Your task to perform on an android device: add a contact in the contacts app Image 0: 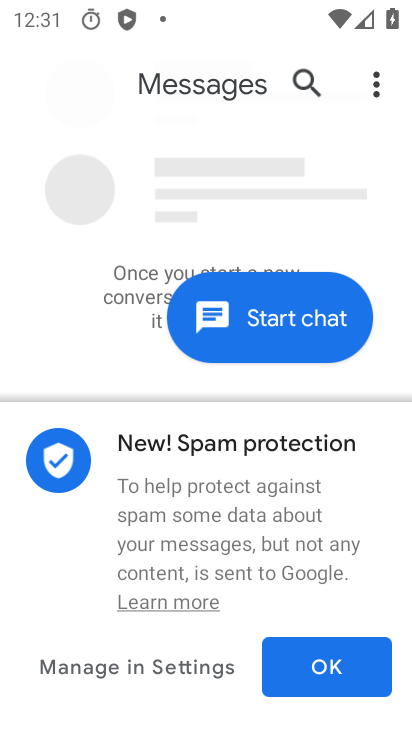
Step 0: press home button
Your task to perform on an android device: add a contact in the contacts app Image 1: 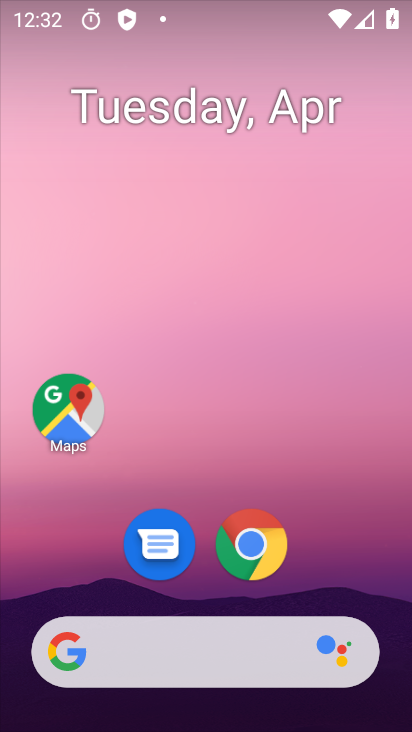
Step 1: drag from (353, 578) to (368, 6)
Your task to perform on an android device: add a contact in the contacts app Image 2: 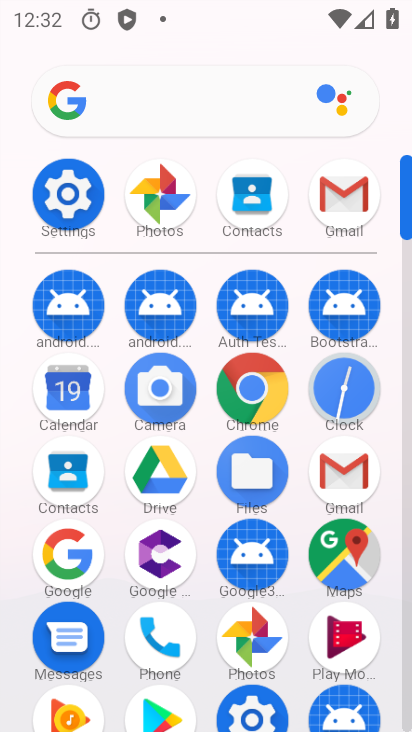
Step 2: click (75, 467)
Your task to perform on an android device: add a contact in the contacts app Image 3: 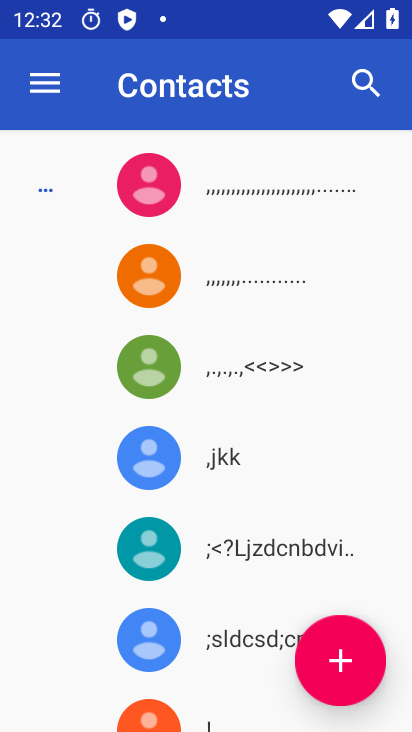
Step 3: click (348, 667)
Your task to perform on an android device: add a contact in the contacts app Image 4: 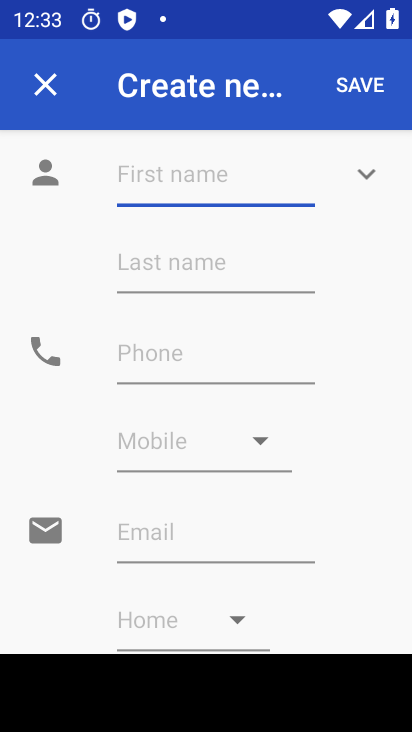
Step 4: type "meena"
Your task to perform on an android device: add a contact in the contacts app Image 5: 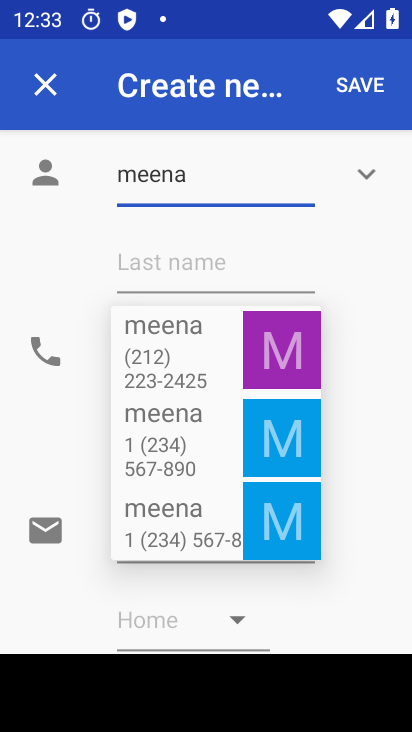
Step 5: click (338, 276)
Your task to perform on an android device: add a contact in the contacts app Image 6: 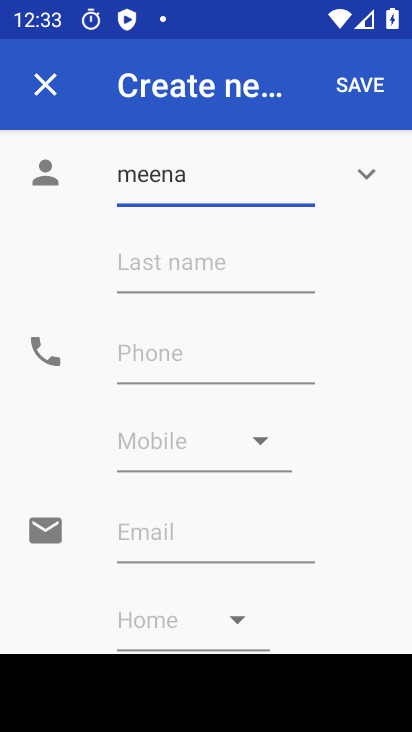
Step 6: click (148, 342)
Your task to perform on an android device: add a contact in the contacts app Image 7: 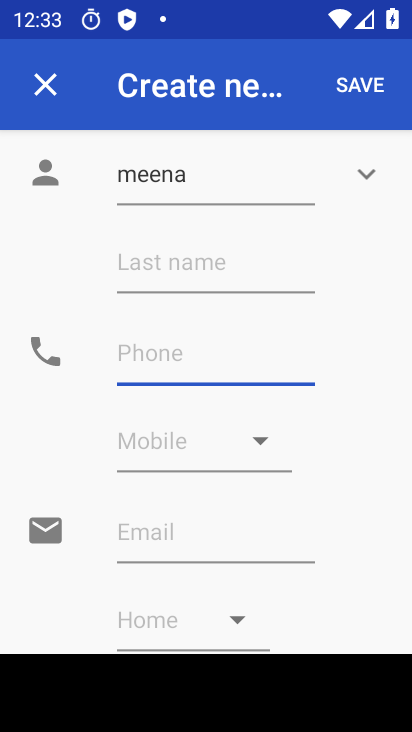
Step 7: type "67899776543"
Your task to perform on an android device: add a contact in the contacts app Image 8: 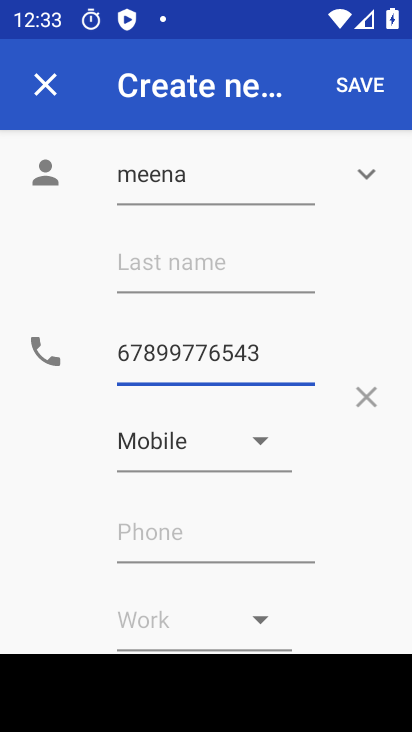
Step 8: click (346, 87)
Your task to perform on an android device: add a contact in the contacts app Image 9: 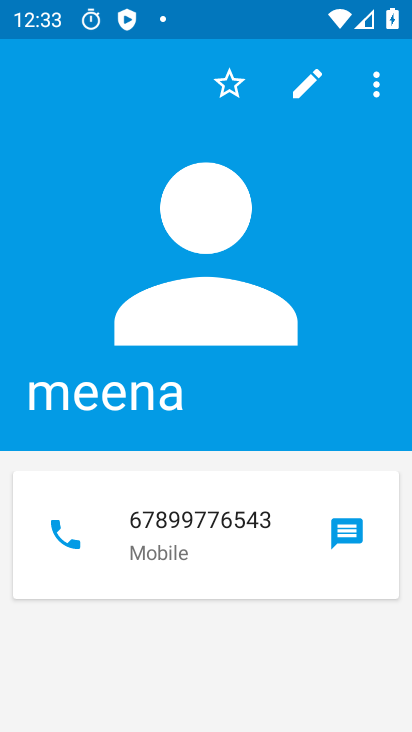
Step 9: task complete